Your task to perform on an android device: uninstall "Clock" Image 0: 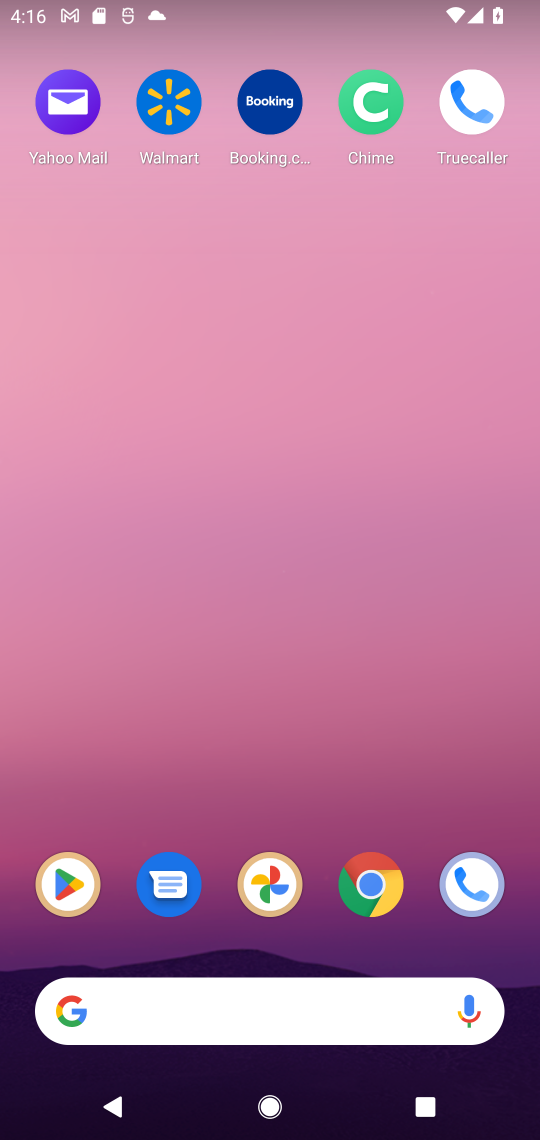
Step 0: click (59, 891)
Your task to perform on an android device: uninstall "Clock" Image 1: 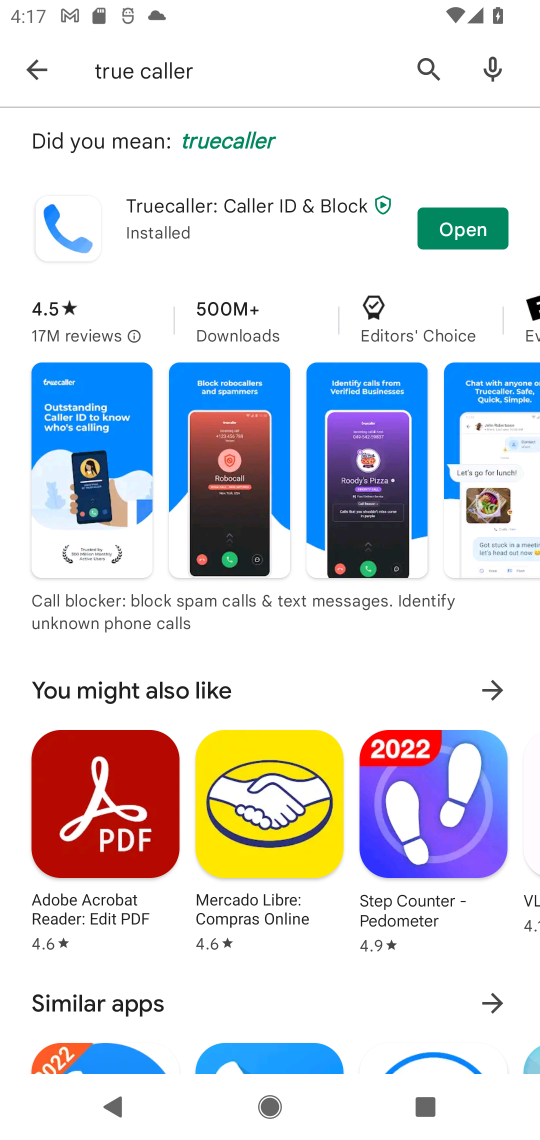
Step 1: click (418, 72)
Your task to perform on an android device: uninstall "Clock" Image 2: 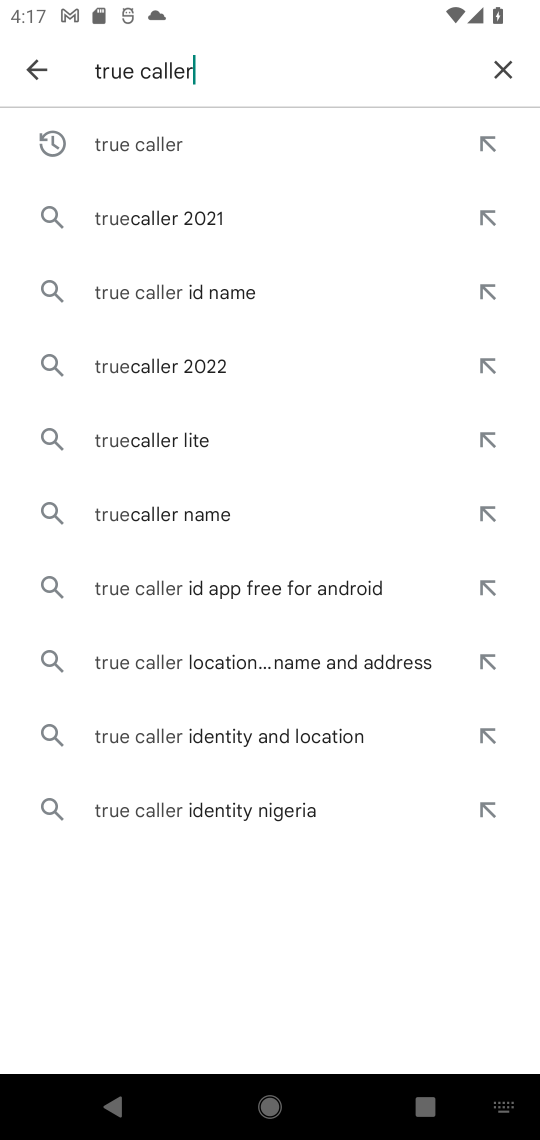
Step 2: click (495, 65)
Your task to perform on an android device: uninstall "Clock" Image 3: 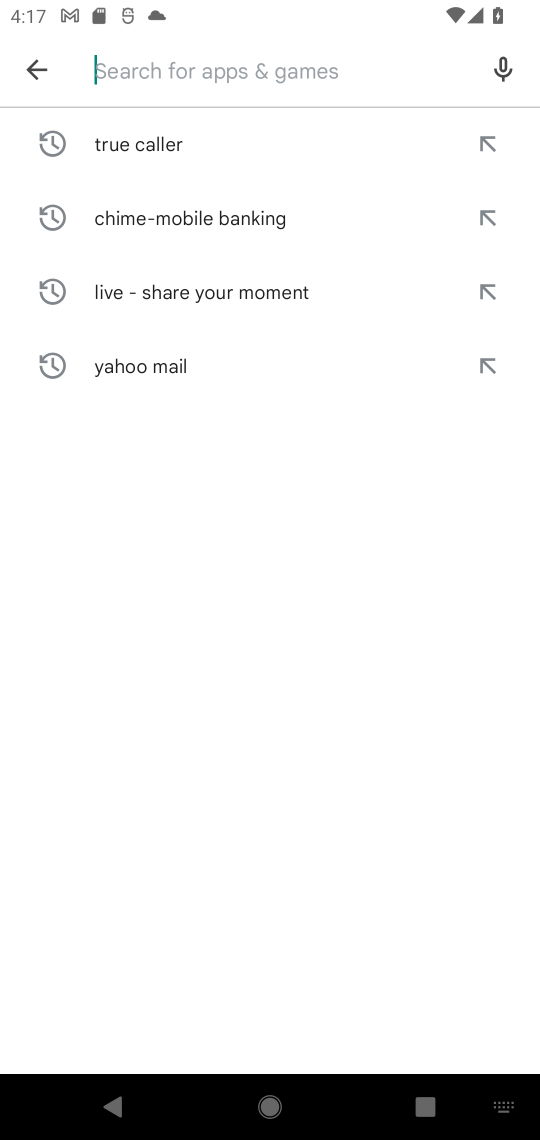
Step 3: type "clock"
Your task to perform on an android device: uninstall "Clock" Image 4: 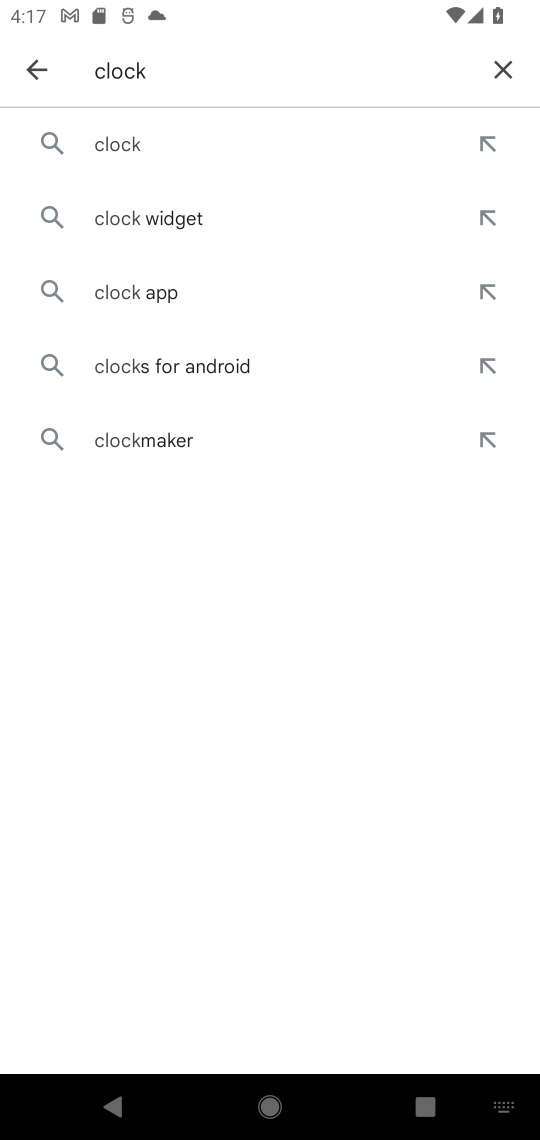
Step 4: click (164, 149)
Your task to perform on an android device: uninstall "Clock" Image 5: 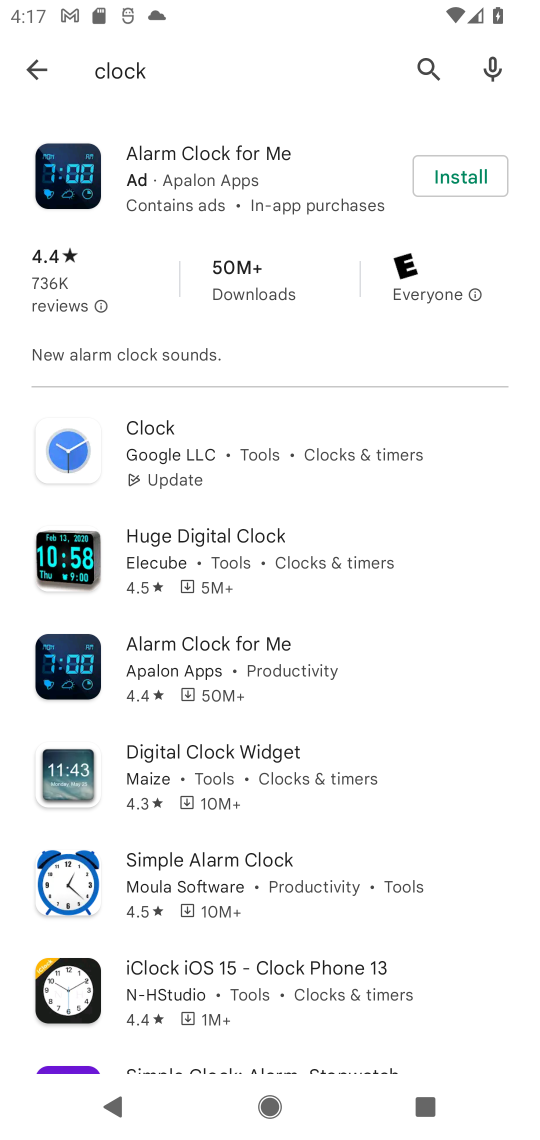
Step 5: click (230, 459)
Your task to perform on an android device: uninstall "Clock" Image 6: 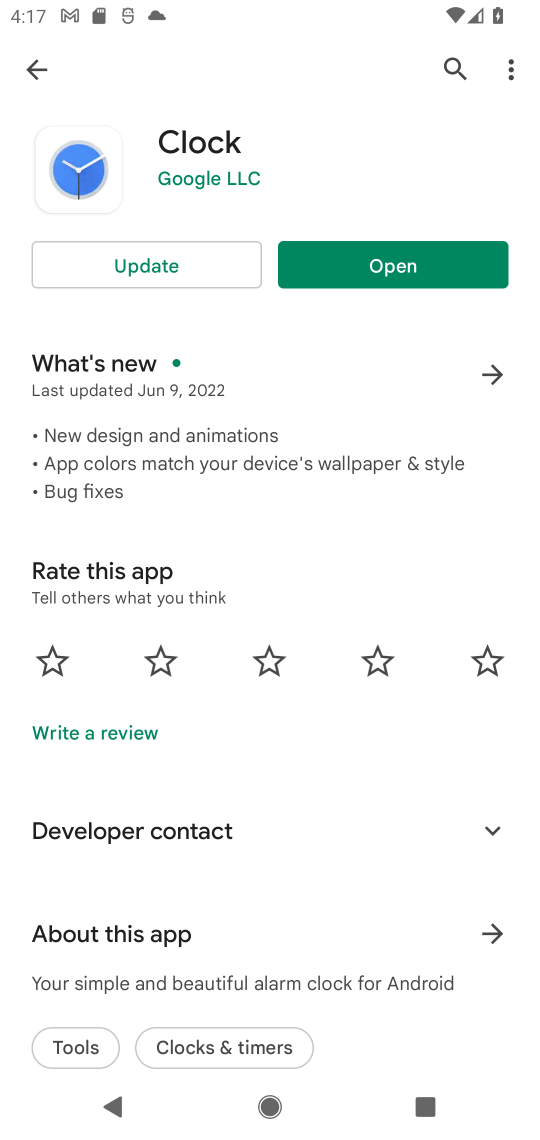
Step 6: task complete